Your task to perform on an android device: search for starred emails in the gmail app Image 0: 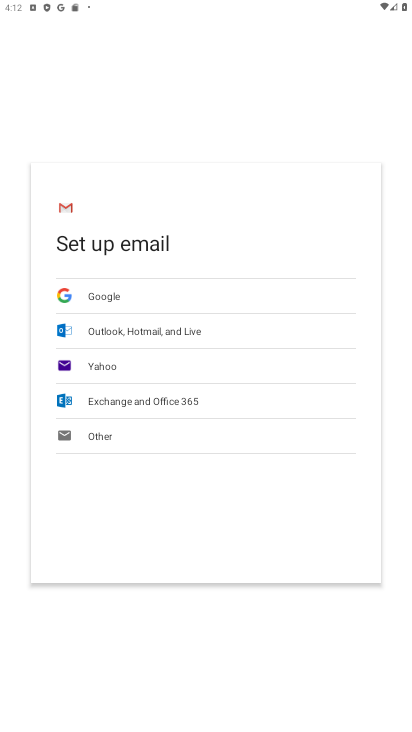
Step 0: press home button
Your task to perform on an android device: search for starred emails in the gmail app Image 1: 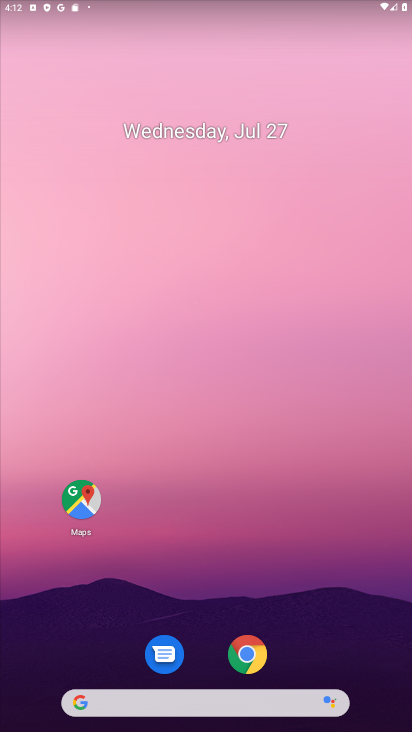
Step 1: drag from (178, 673) to (177, 233)
Your task to perform on an android device: search for starred emails in the gmail app Image 2: 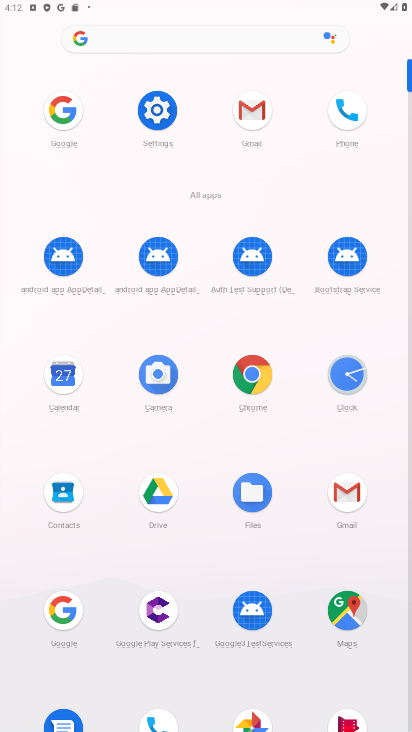
Step 2: click (334, 501)
Your task to perform on an android device: search for starred emails in the gmail app Image 3: 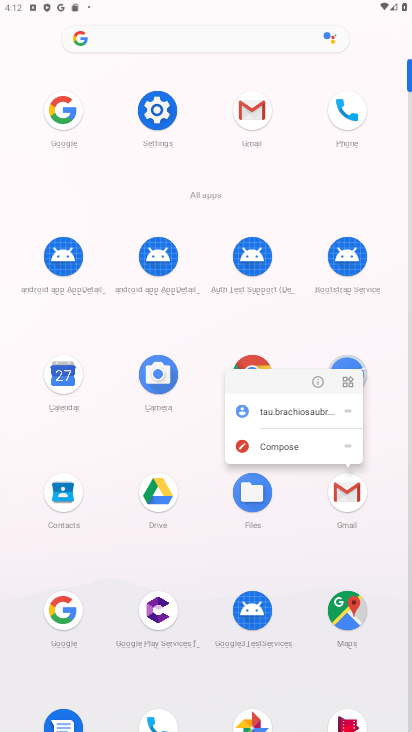
Step 3: click (344, 493)
Your task to perform on an android device: search for starred emails in the gmail app Image 4: 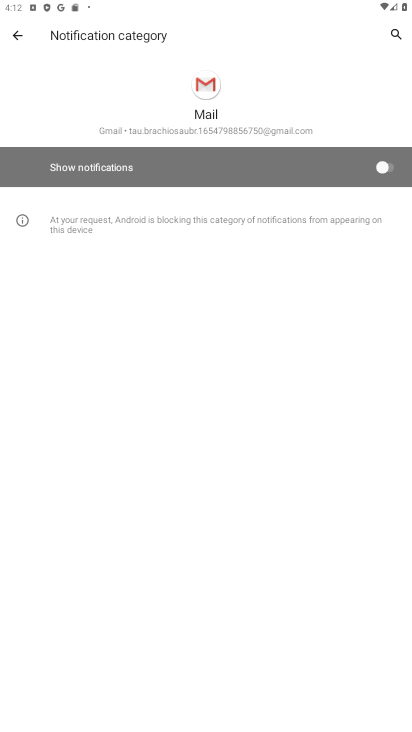
Step 4: click (17, 42)
Your task to perform on an android device: search for starred emails in the gmail app Image 5: 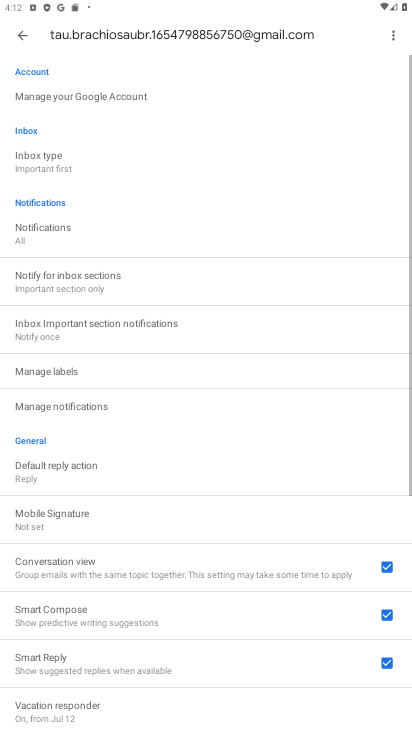
Step 5: click (17, 42)
Your task to perform on an android device: search for starred emails in the gmail app Image 6: 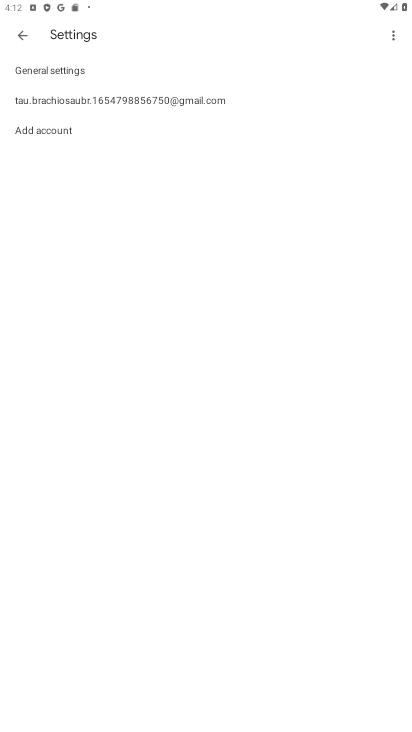
Step 6: click (17, 42)
Your task to perform on an android device: search for starred emails in the gmail app Image 7: 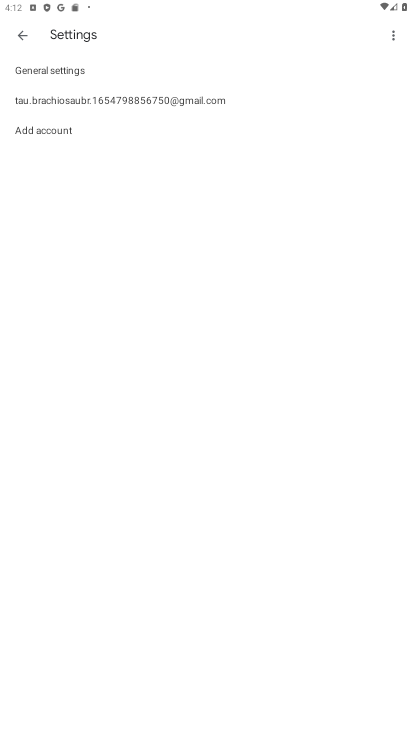
Step 7: click (19, 23)
Your task to perform on an android device: search for starred emails in the gmail app Image 8: 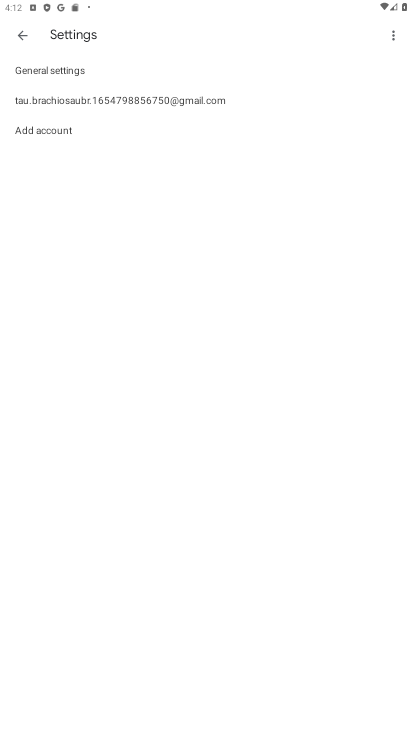
Step 8: click (25, 32)
Your task to perform on an android device: search for starred emails in the gmail app Image 9: 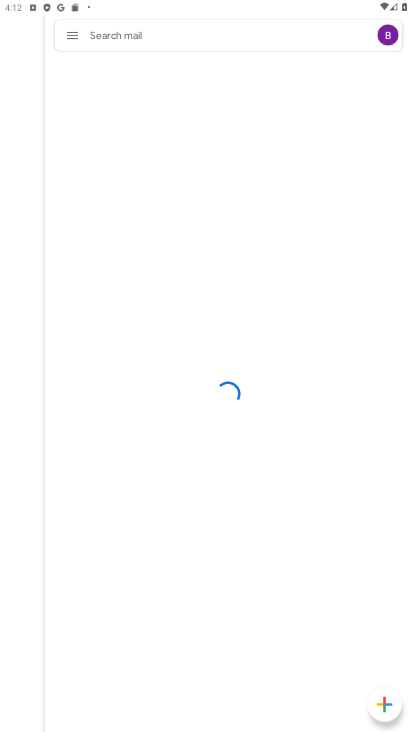
Step 9: click (65, 37)
Your task to perform on an android device: search for starred emails in the gmail app Image 10: 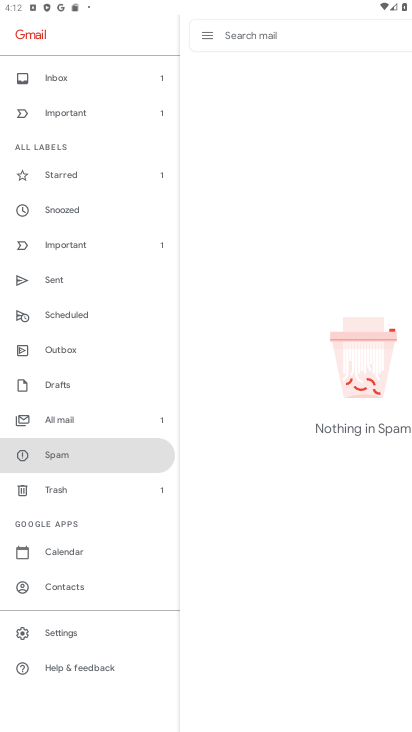
Step 10: click (79, 177)
Your task to perform on an android device: search for starred emails in the gmail app Image 11: 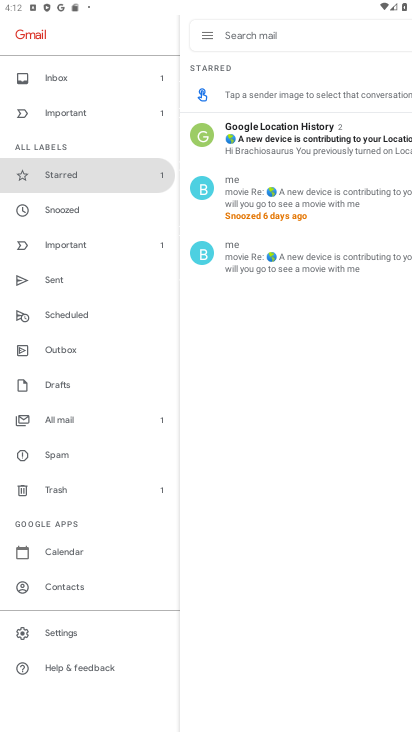
Step 11: task complete